Your task to perform on an android device: Go to Google maps Image 0: 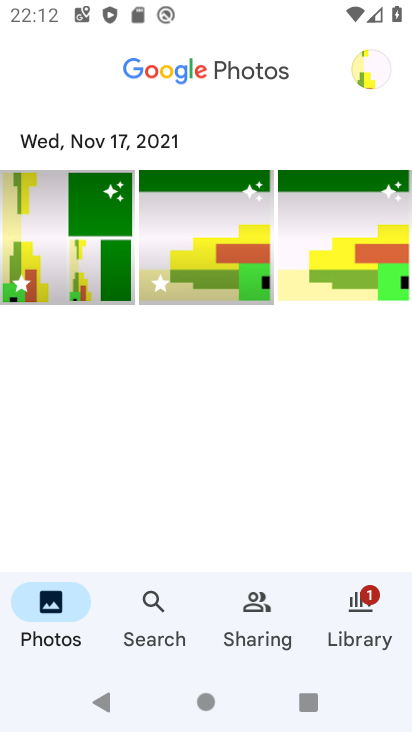
Step 0: press home button
Your task to perform on an android device: Go to Google maps Image 1: 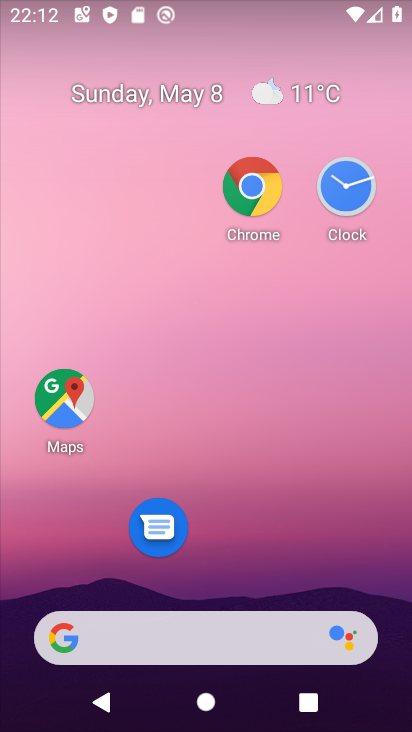
Step 1: click (48, 400)
Your task to perform on an android device: Go to Google maps Image 2: 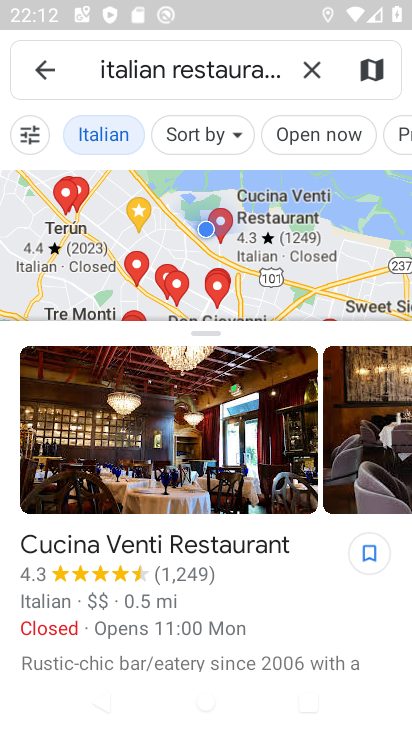
Step 2: task complete